Your task to perform on an android device: uninstall "Truecaller" Image 0: 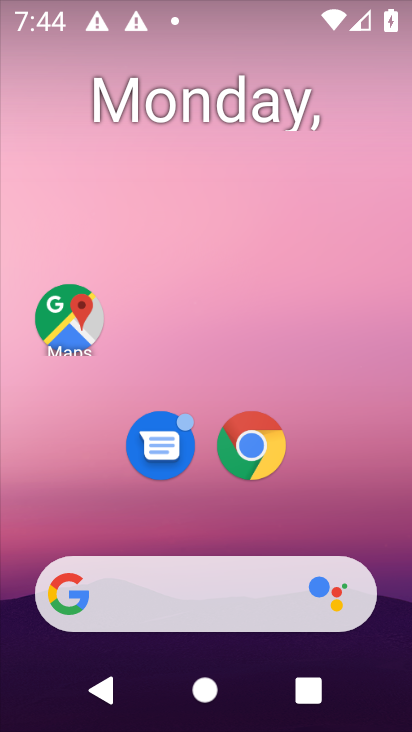
Step 0: drag from (392, 571) to (235, 79)
Your task to perform on an android device: uninstall "Truecaller" Image 1: 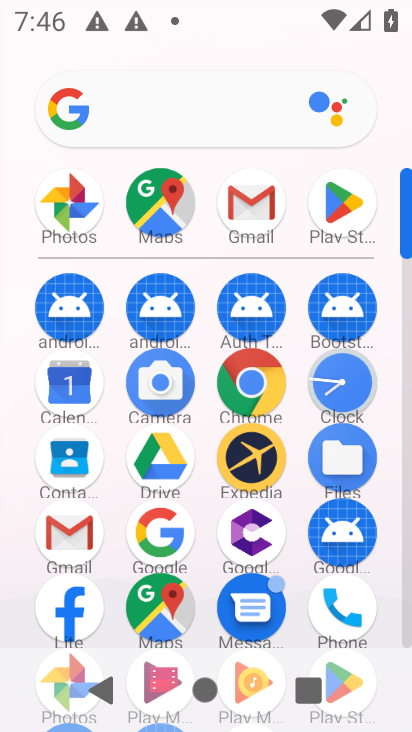
Step 1: click (332, 193)
Your task to perform on an android device: uninstall "Truecaller" Image 2: 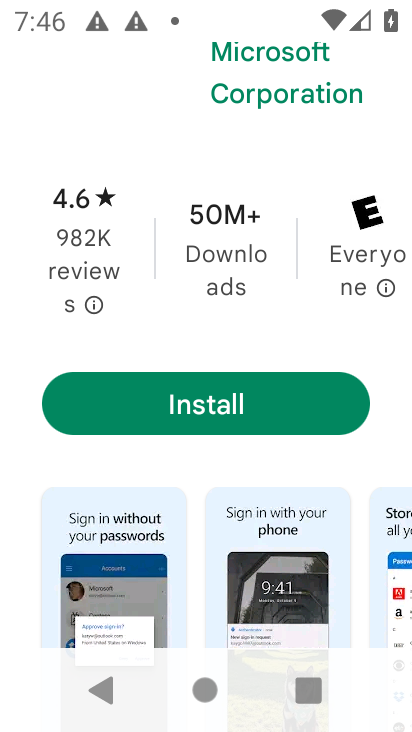
Step 2: press back button
Your task to perform on an android device: uninstall "Truecaller" Image 3: 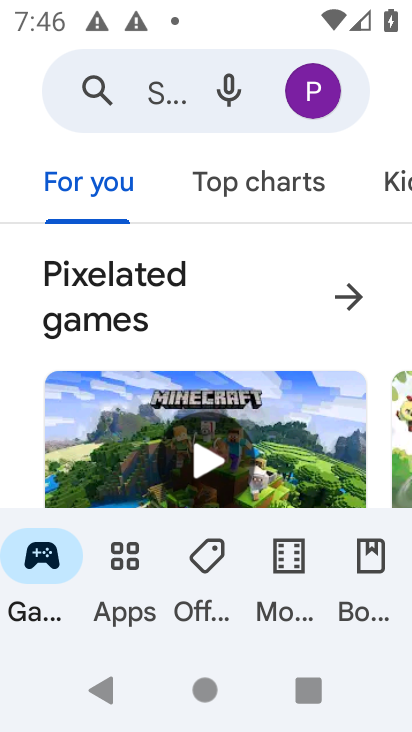
Step 3: click (105, 97)
Your task to perform on an android device: uninstall "Truecaller" Image 4: 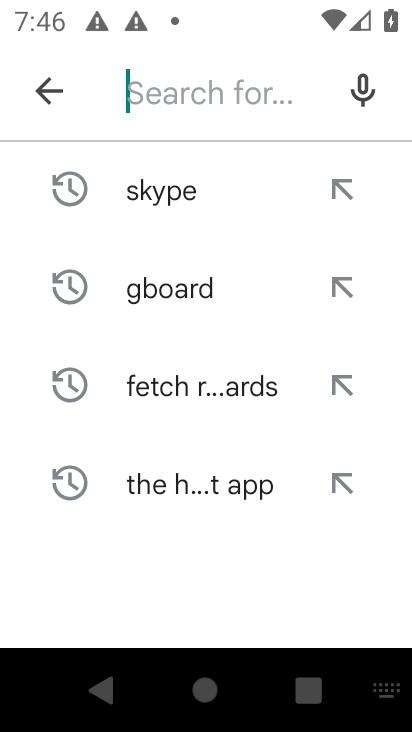
Step 4: type "Truecaller"
Your task to perform on an android device: uninstall "Truecaller" Image 5: 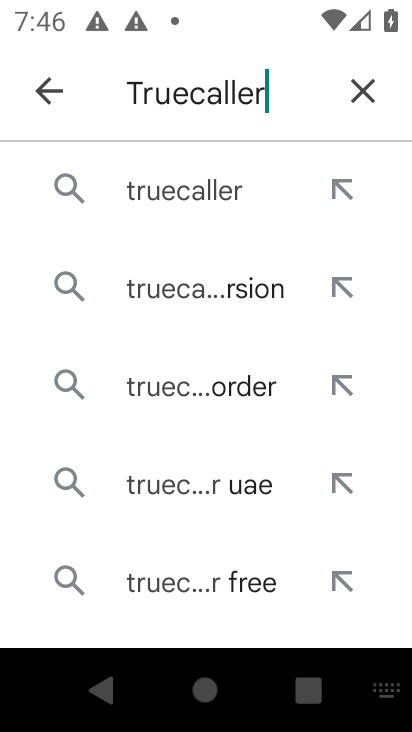
Step 5: click (147, 212)
Your task to perform on an android device: uninstall "Truecaller" Image 6: 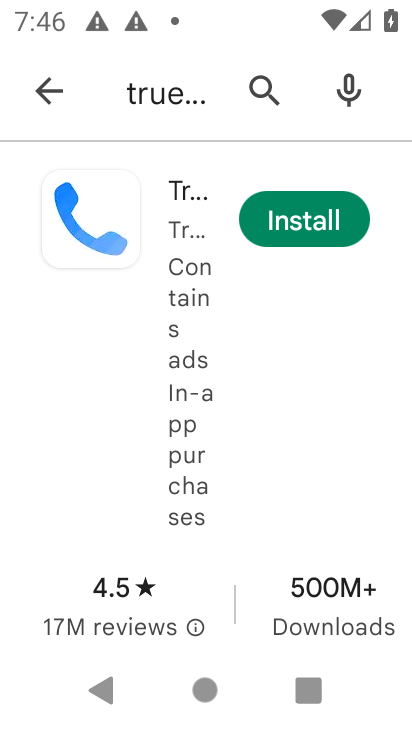
Step 6: task complete